Your task to perform on an android device: change the upload size in google photos Image 0: 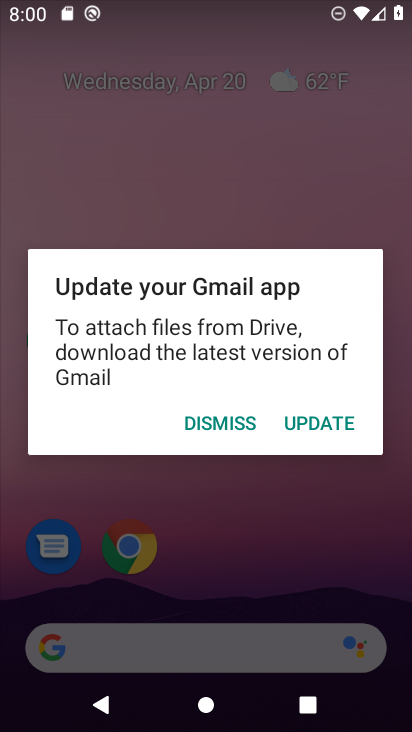
Step 0: press home button
Your task to perform on an android device: change the upload size in google photos Image 1: 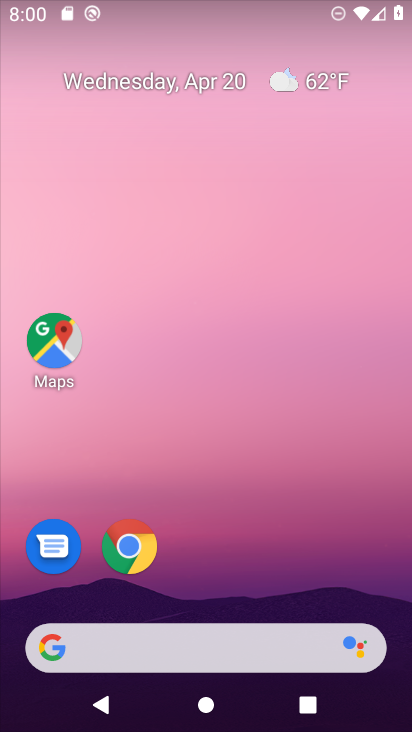
Step 1: drag from (261, 548) to (288, 128)
Your task to perform on an android device: change the upload size in google photos Image 2: 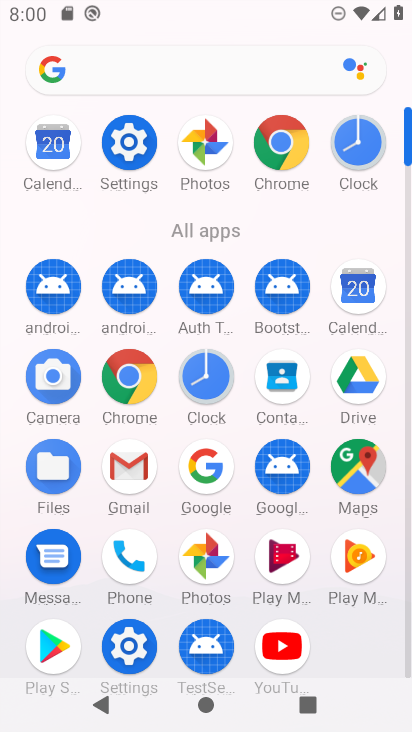
Step 2: click (206, 135)
Your task to perform on an android device: change the upload size in google photos Image 3: 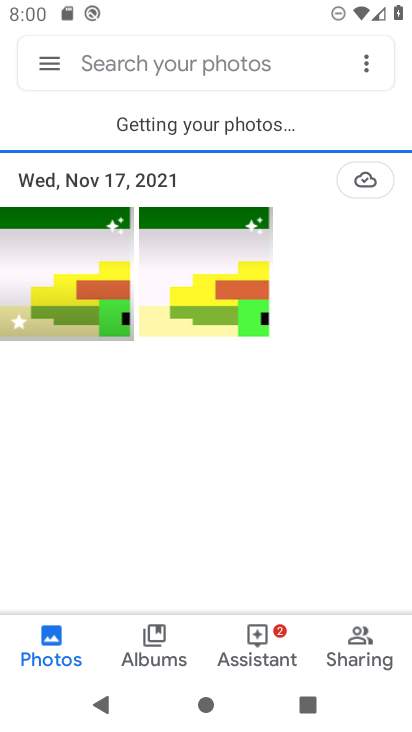
Step 3: click (51, 69)
Your task to perform on an android device: change the upload size in google photos Image 4: 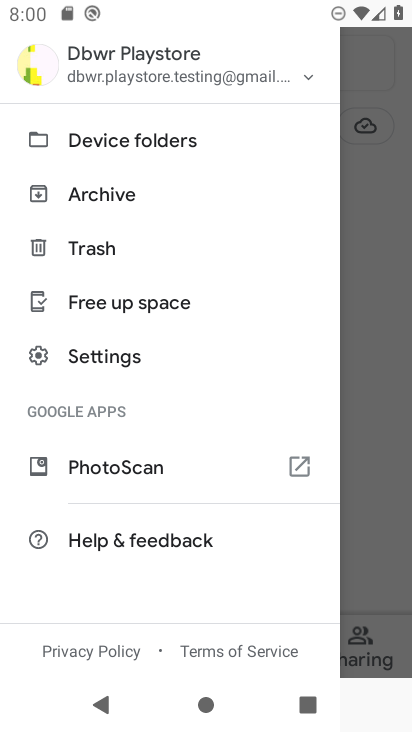
Step 4: click (106, 358)
Your task to perform on an android device: change the upload size in google photos Image 5: 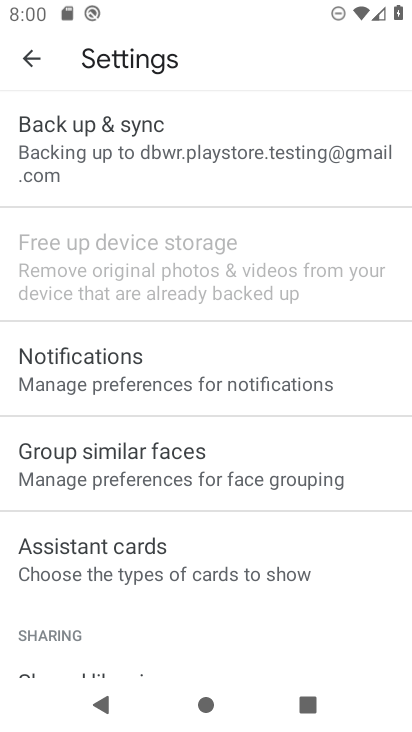
Step 5: click (211, 132)
Your task to perform on an android device: change the upload size in google photos Image 6: 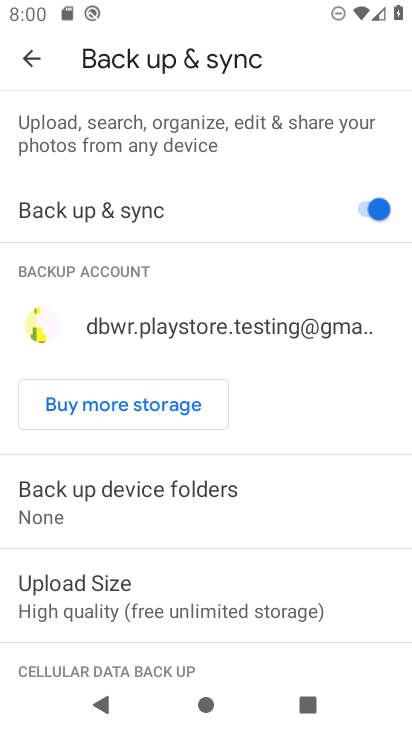
Step 6: click (215, 612)
Your task to perform on an android device: change the upload size in google photos Image 7: 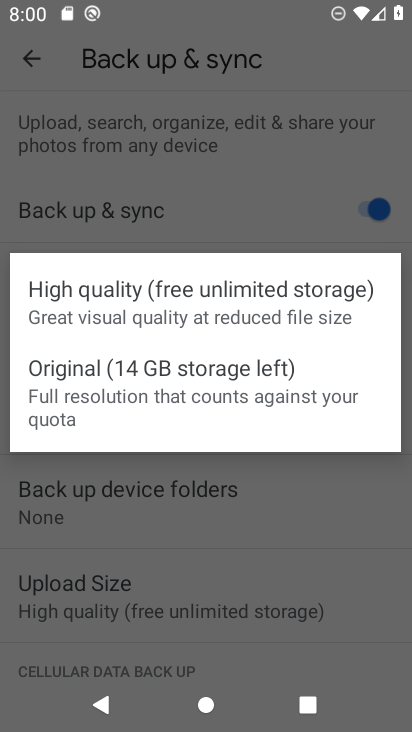
Step 7: click (256, 378)
Your task to perform on an android device: change the upload size in google photos Image 8: 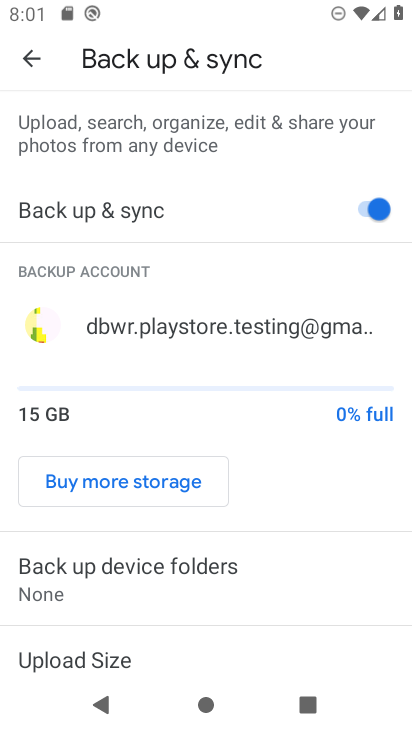
Step 8: task complete